Your task to perform on an android device: Search for Mexican restaurants on Maps Image 0: 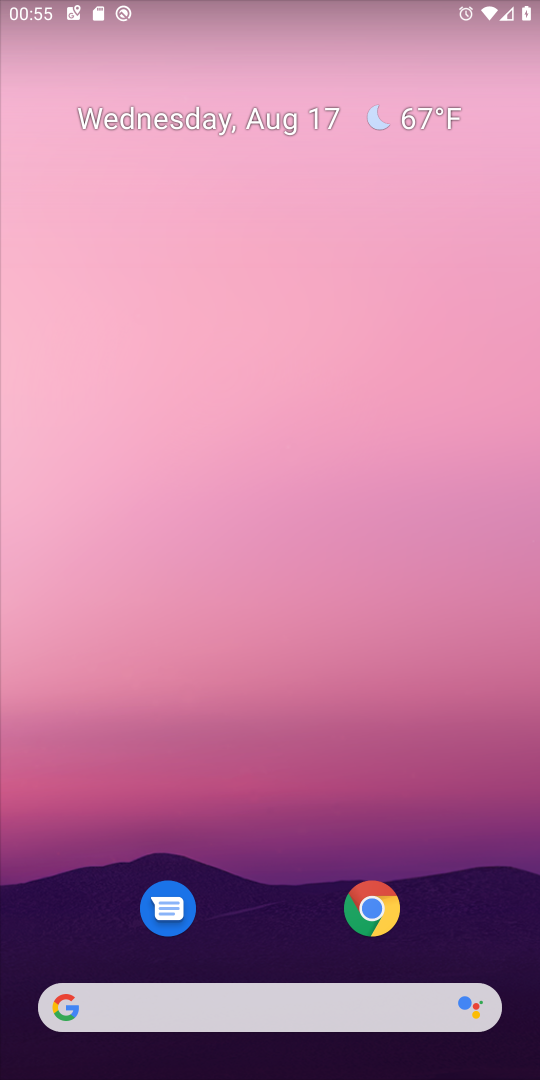
Step 0: drag from (267, 781) to (290, 432)
Your task to perform on an android device: Search for Mexican restaurants on Maps Image 1: 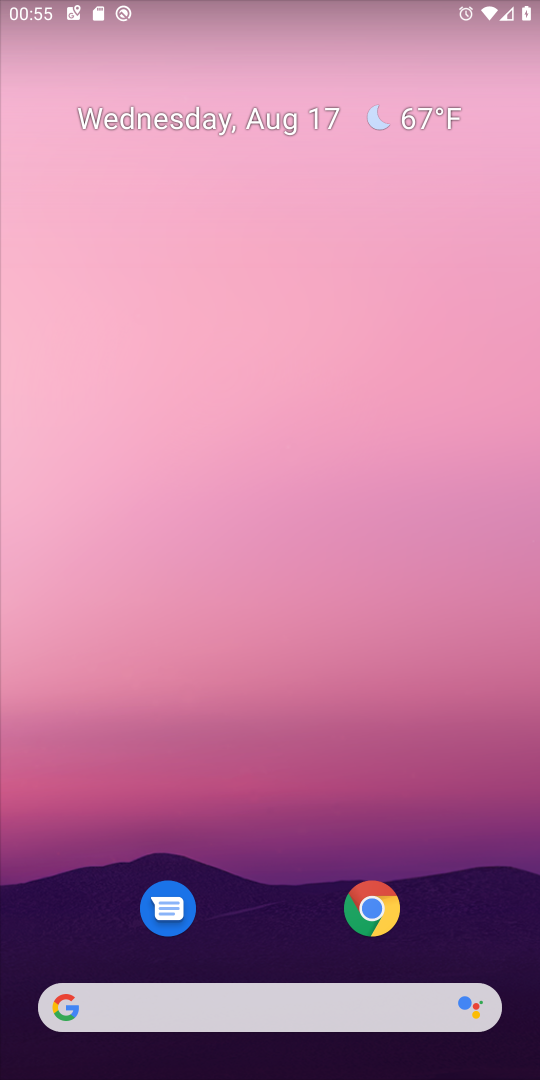
Step 1: drag from (273, 929) to (285, 245)
Your task to perform on an android device: Search for Mexican restaurants on Maps Image 2: 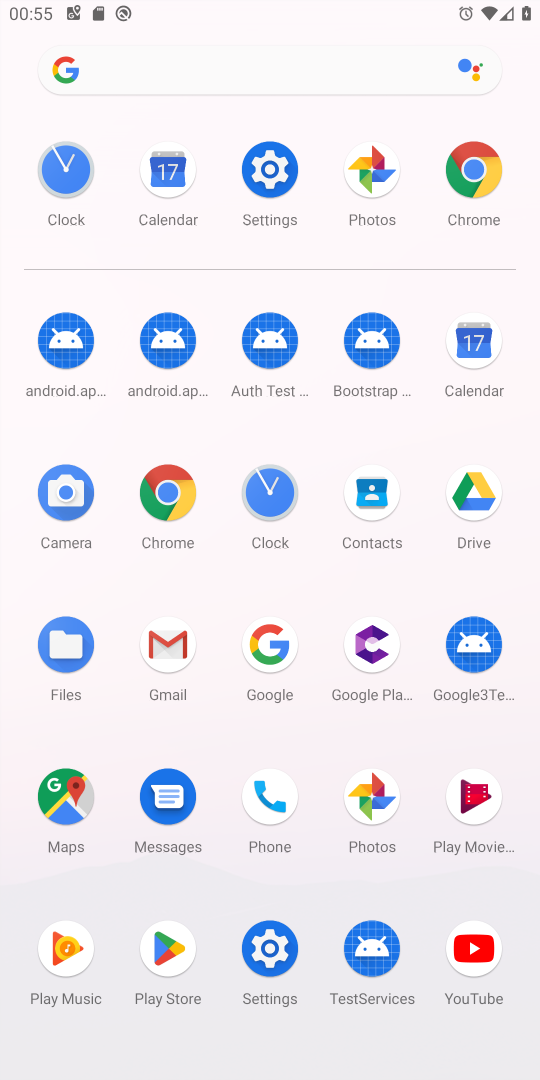
Step 2: click (81, 796)
Your task to perform on an android device: Search for Mexican restaurants on Maps Image 3: 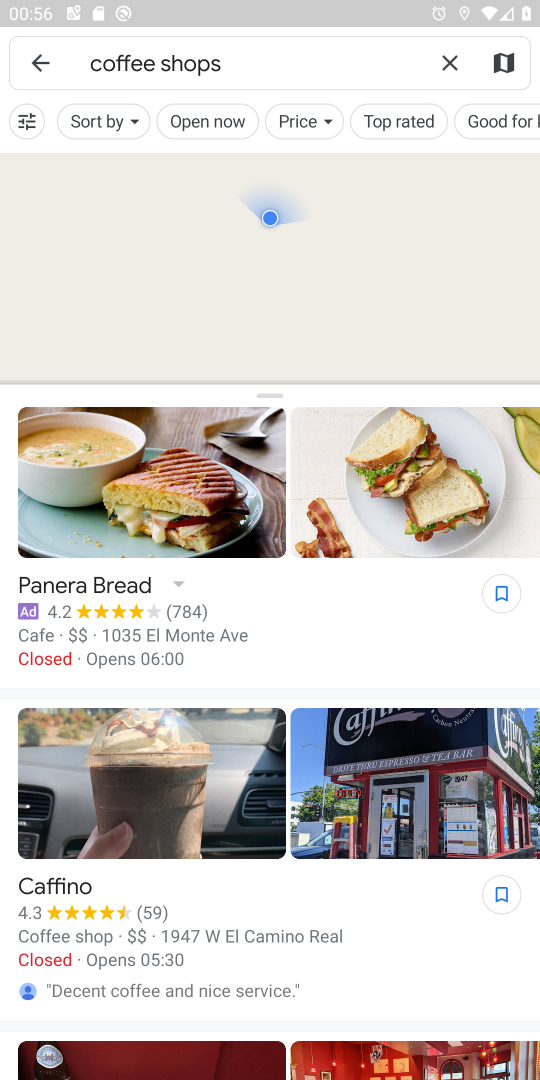
Step 3: click (445, 60)
Your task to perform on an android device: Search for Mexican restaurants on Maps Image 4: 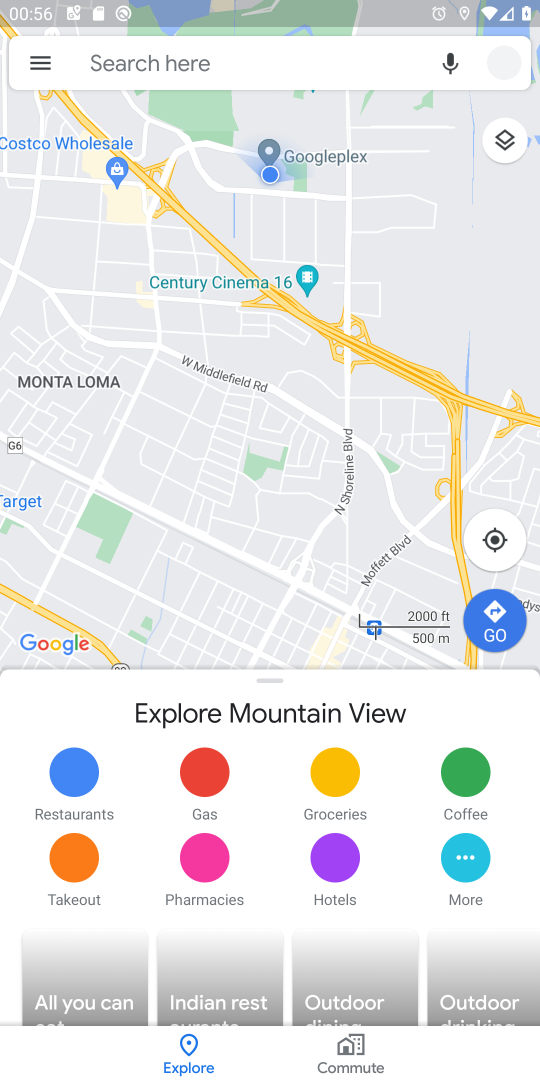
Step 4: click (177, 63)
Your task to perform on an android device: Search for Mexican restaurants on Maps Image 5: 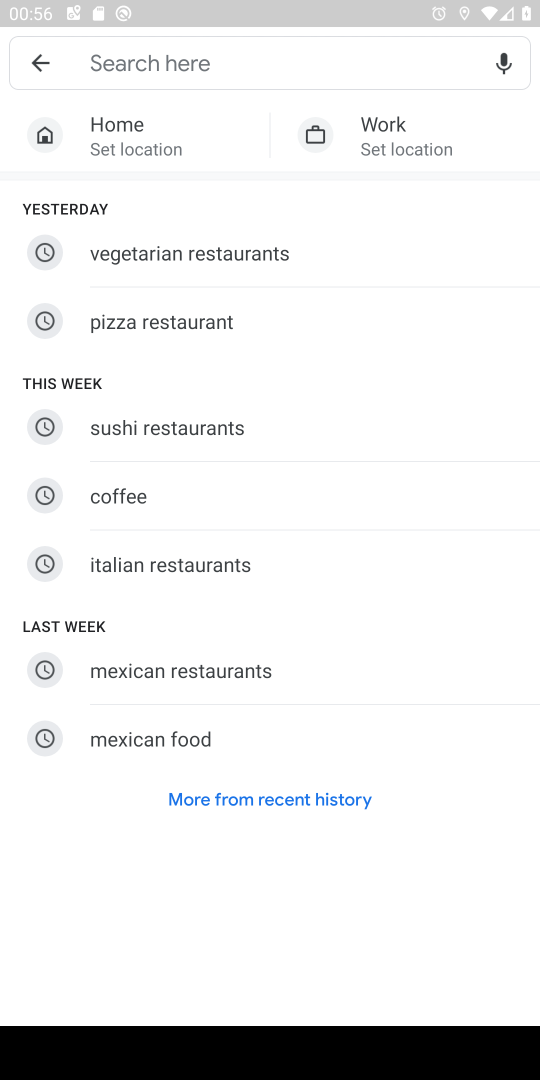
Step 5: type "Mexican restaurants"
Your task to perform on an android device: Search for Mexican restaurants on Maps Image 6: 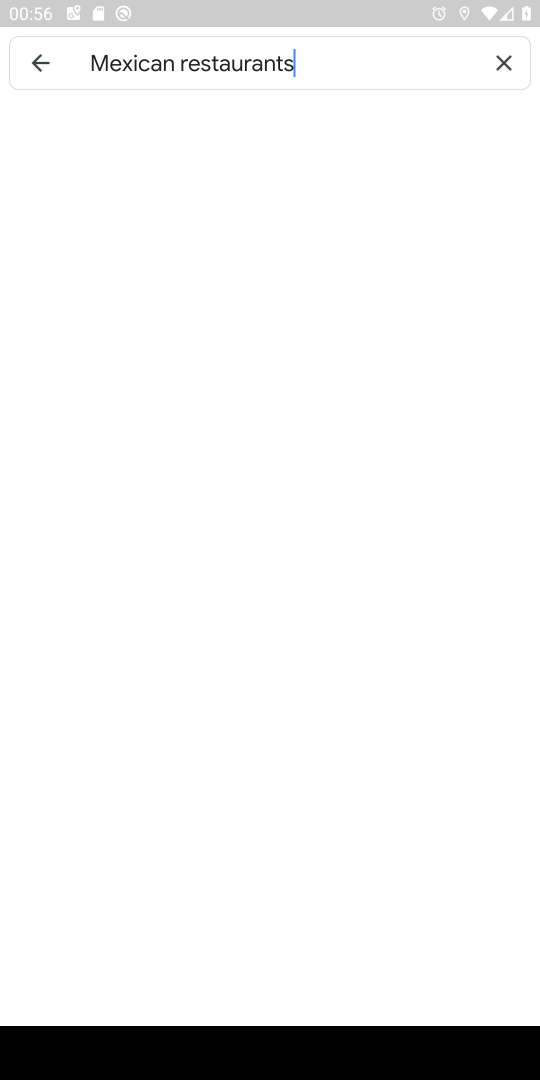
Step 6: type ""
Your task to perform on an android device: Search for Mexican restaurants on Maps Image 7: 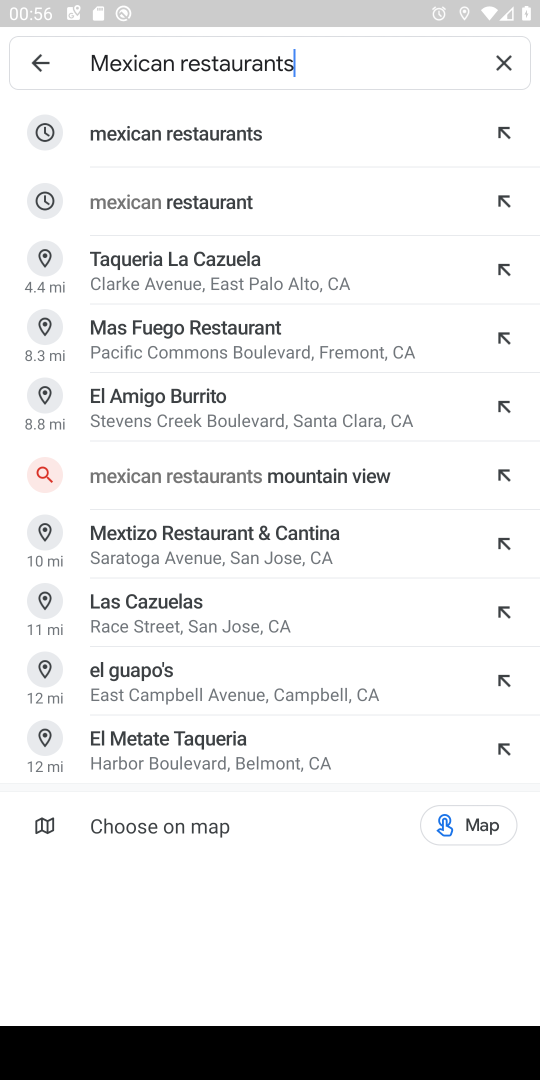
Step 7: click (219, 129)
Your task to perform on an android device: Search for Mexican restaurants on Maps Image 8: 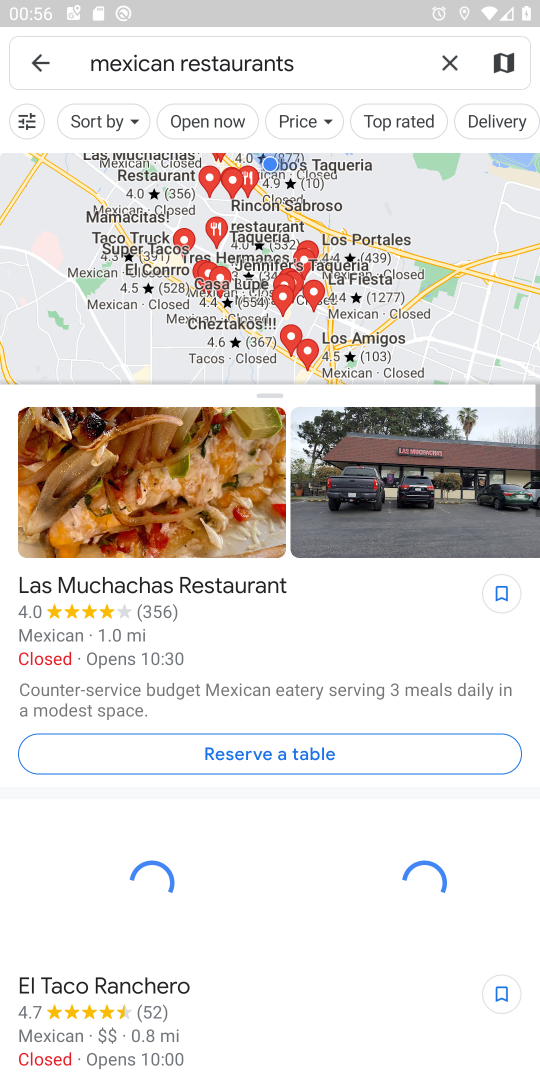
Step 8: task complete